Your task to perform on an android device: Open privacy settings Image 0: 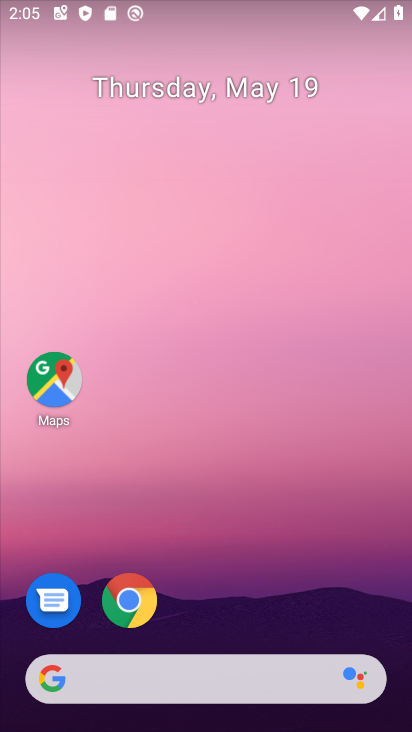
Step 0: drag from (219, 650) to (210, 265)
Your task to perform on an android device: Open privacy settings Image 1: 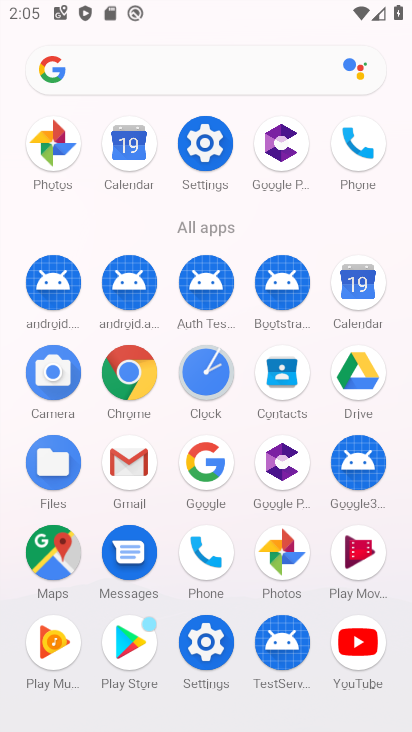
Step 1: click (202, 158)
Your task to perform on an android device: Open privacy settings Image 2: 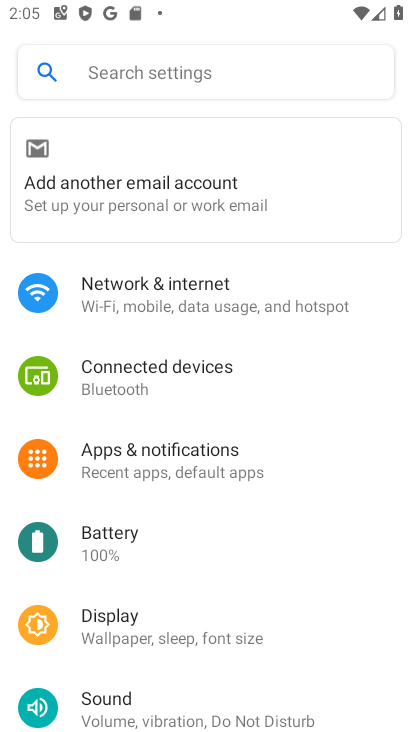
Step 2: drag from (136, 720) to (128, 338)
Your task to perform on an android device: Open privacy settings Image 3: 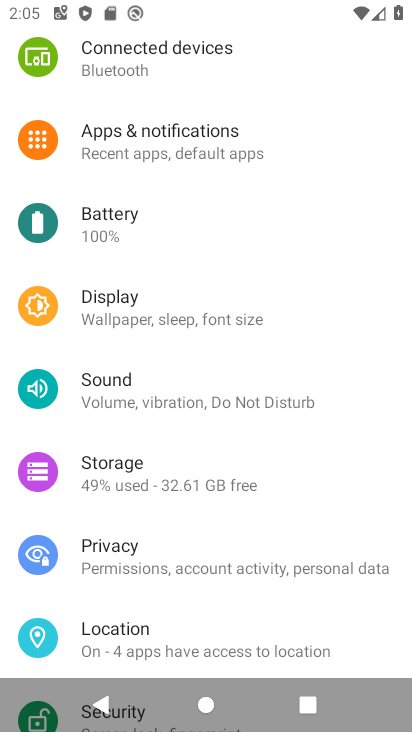
Step 3: click (110, 563)
Your task to perform on an android device: Open privacy settings Image 4: 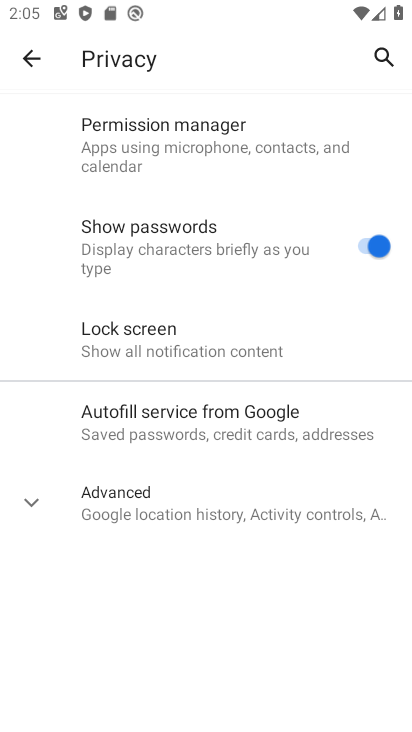
Step 4: click (152, 490)
Your task to perform on an android device: Open privacy settings Image 5: 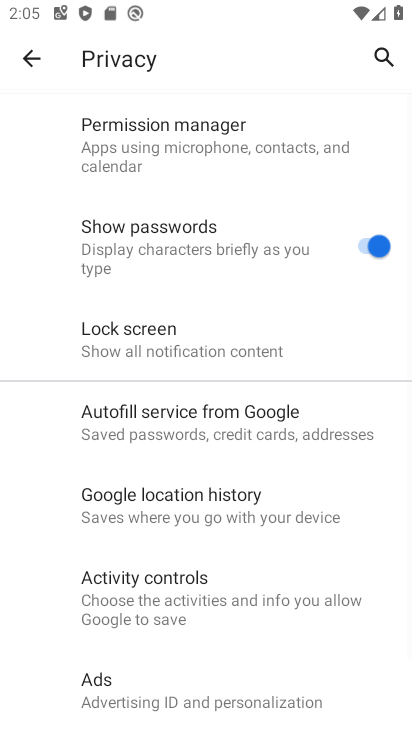
Step 5: task complete